Your task to perform on an android device: open app "Spotify" (install if not already installed) and go to login screen Image 0: 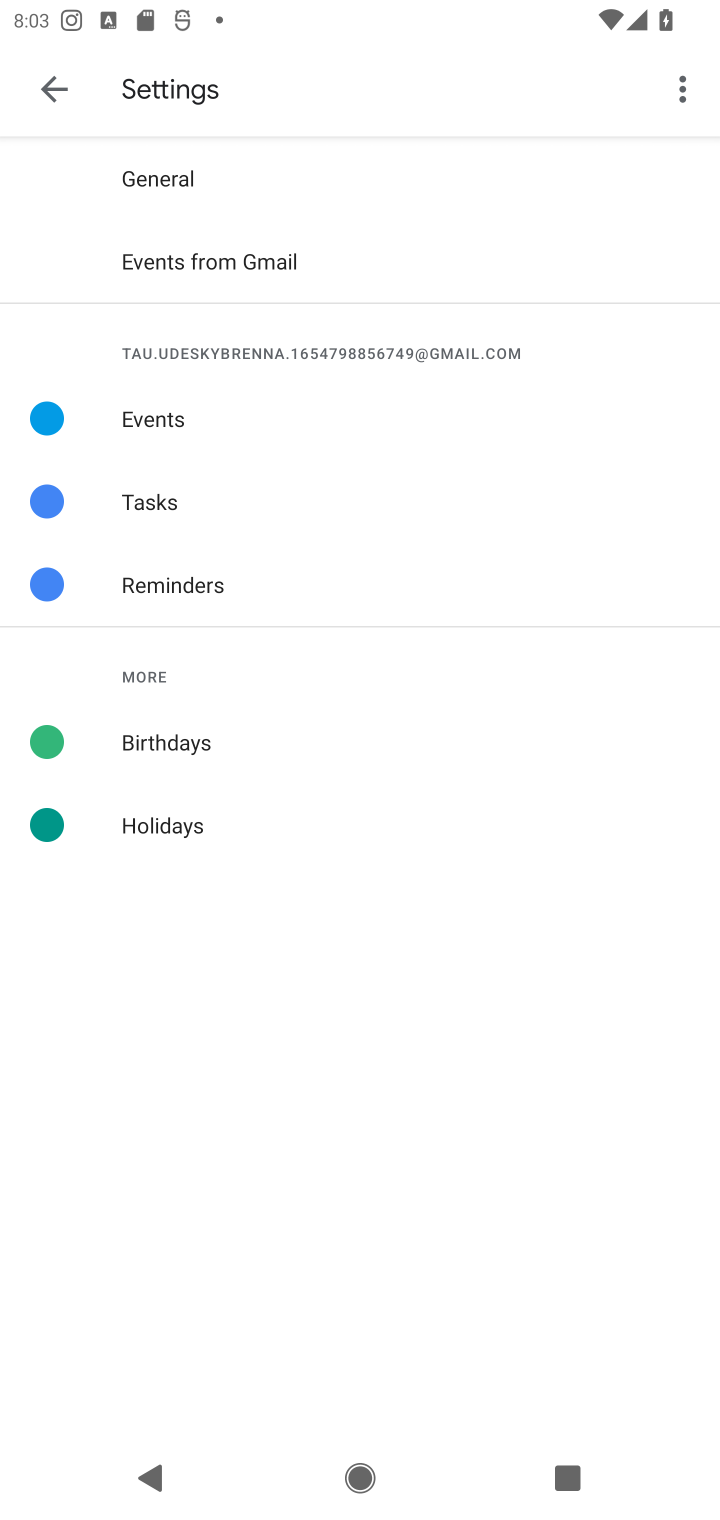
Step 0: press home button
Your task to perform on an android device: open app "Spotify" (install if not already installed) and go to login screen Image 1: 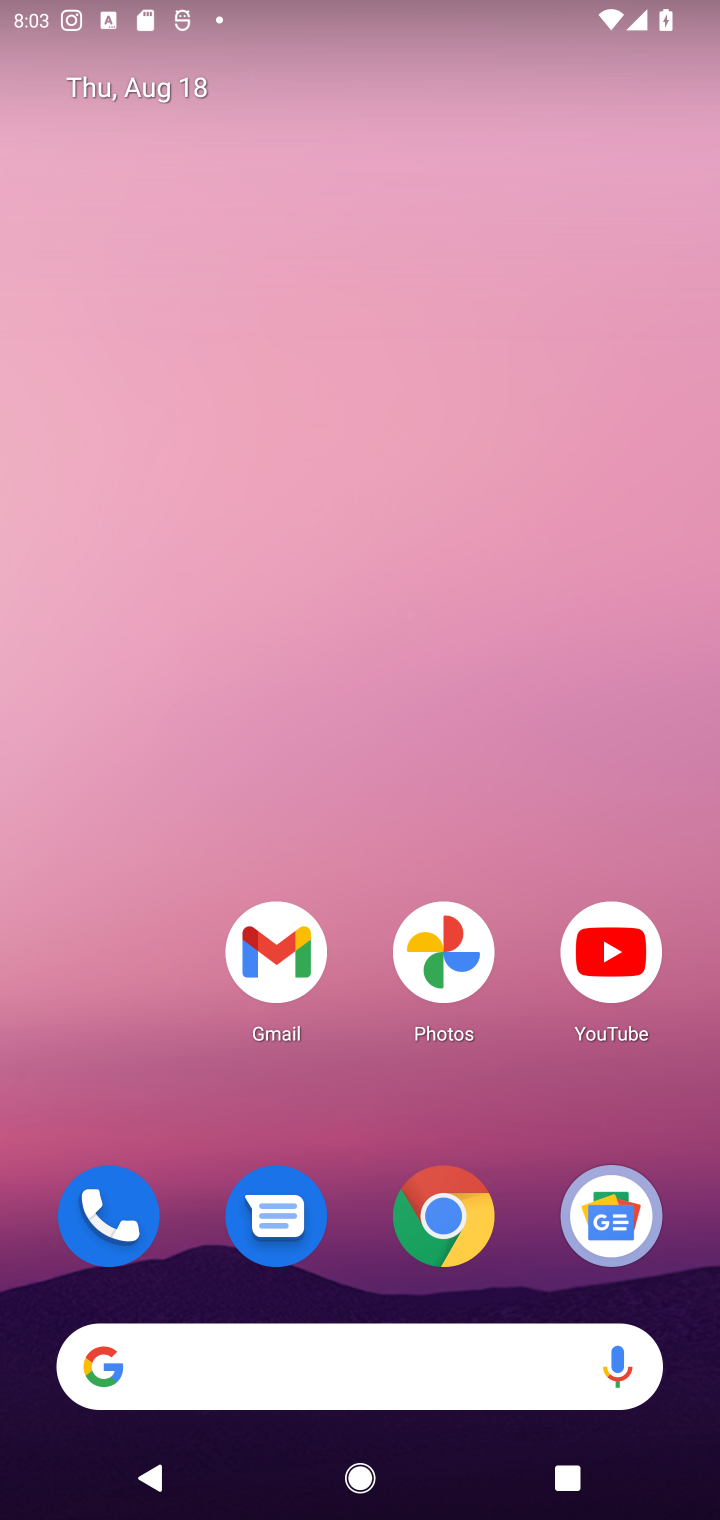
Step 1: drag from (372, 801) to (388, 198)
Your task to perform on an android device: open app "Spotify" (install if not already installed) and go to login screen Image 2: 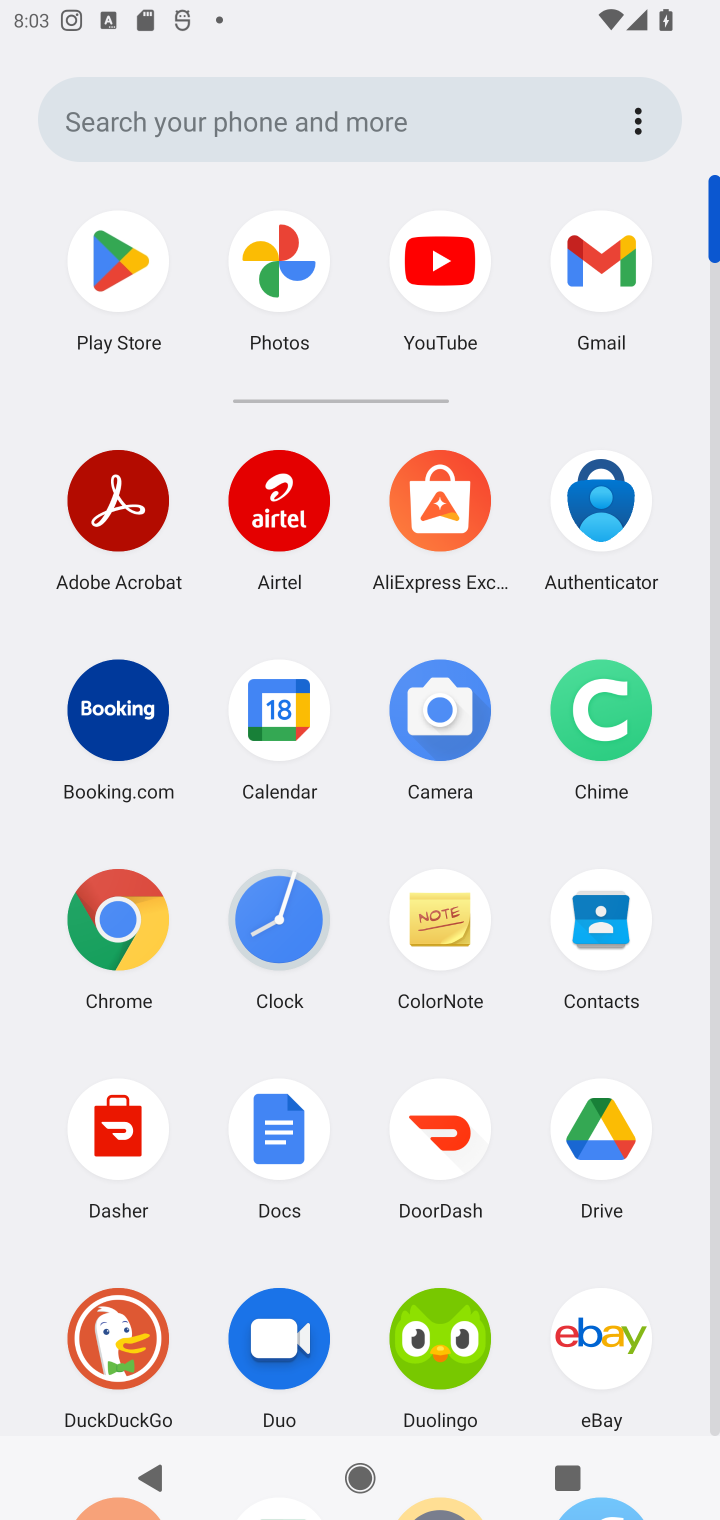
Step 2: click (144, 260)
Your task to perform on an android device: open app "Spotify" (install if not already installed) and go to login screen Image 3: 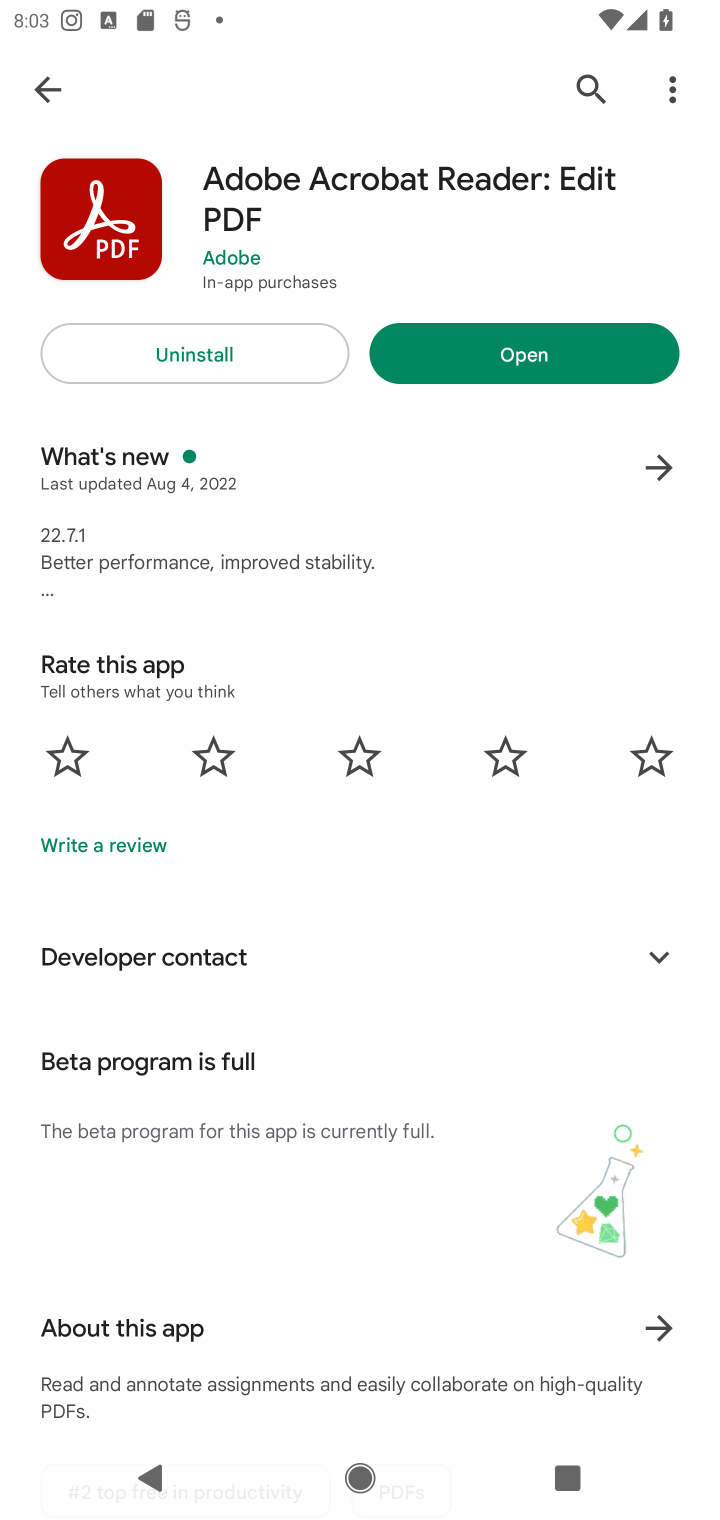
Step 3: click (579, 74)
Your task to perform on an android device: open app "Spotify" (install if not already installed) and go to login screen Image 4: 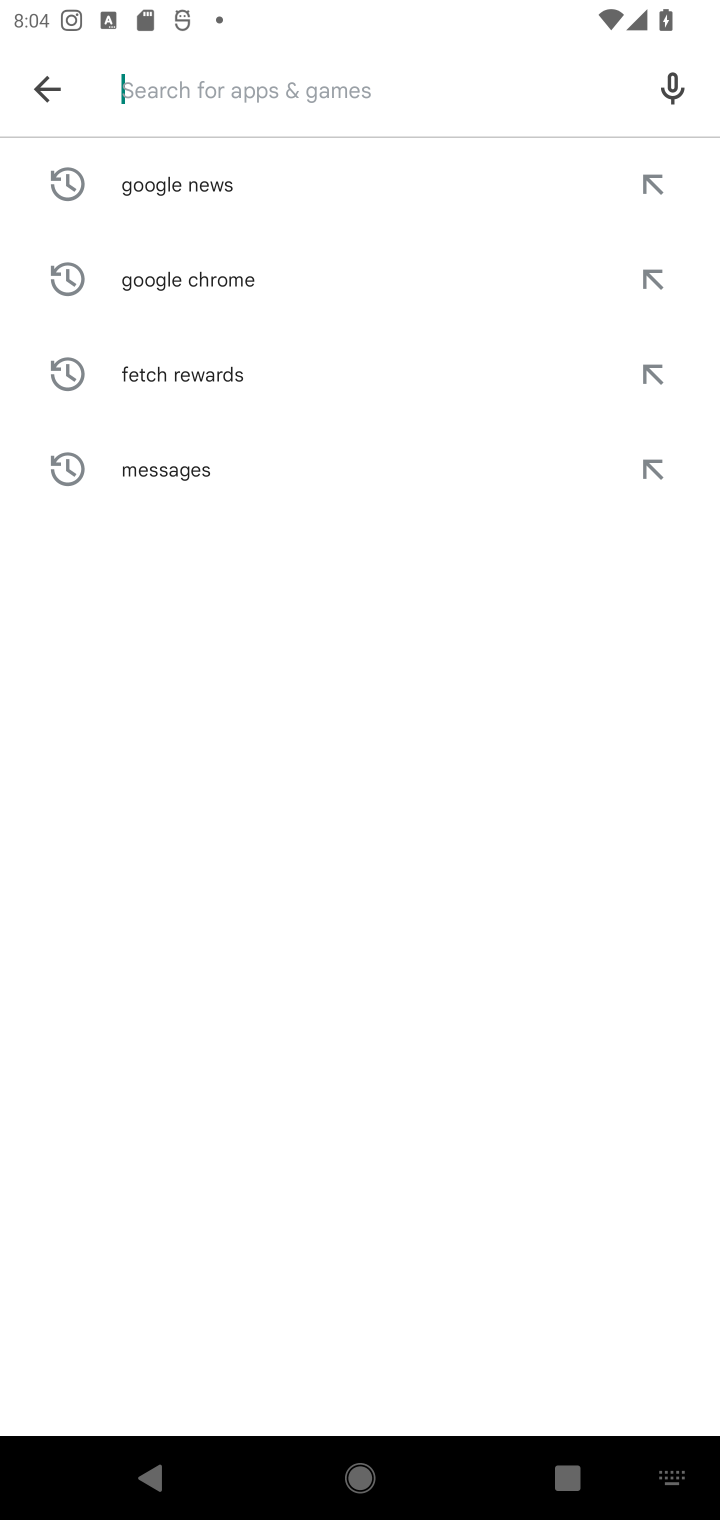
Step 4: type "Spotify"
Your task to perform on an android device: open app "Spotify" (install if not already installed) and go to login screen Image 5: 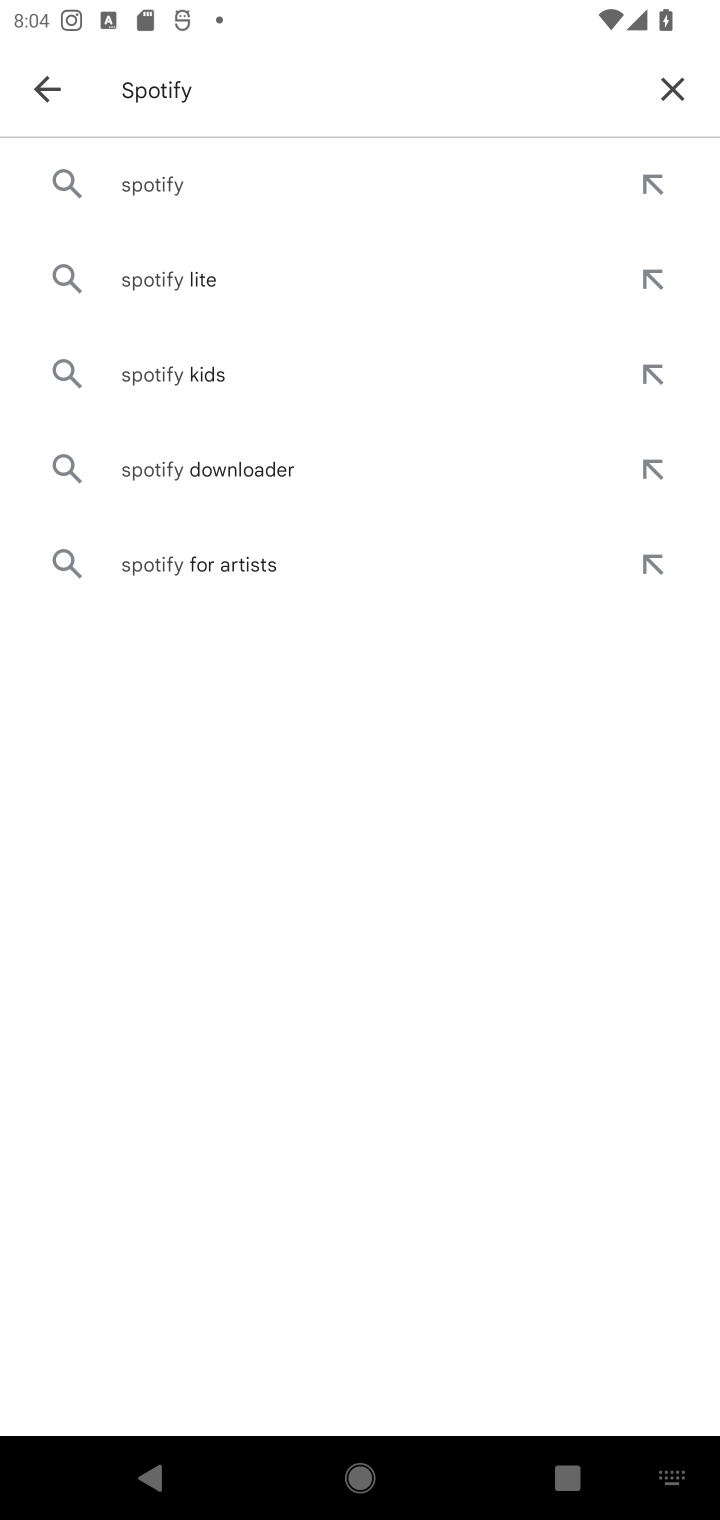
Step 5: click (232, 200)
Your task to perform on an android device: open app "Spotify" (install if not already installed) and go to login screen Image 6: 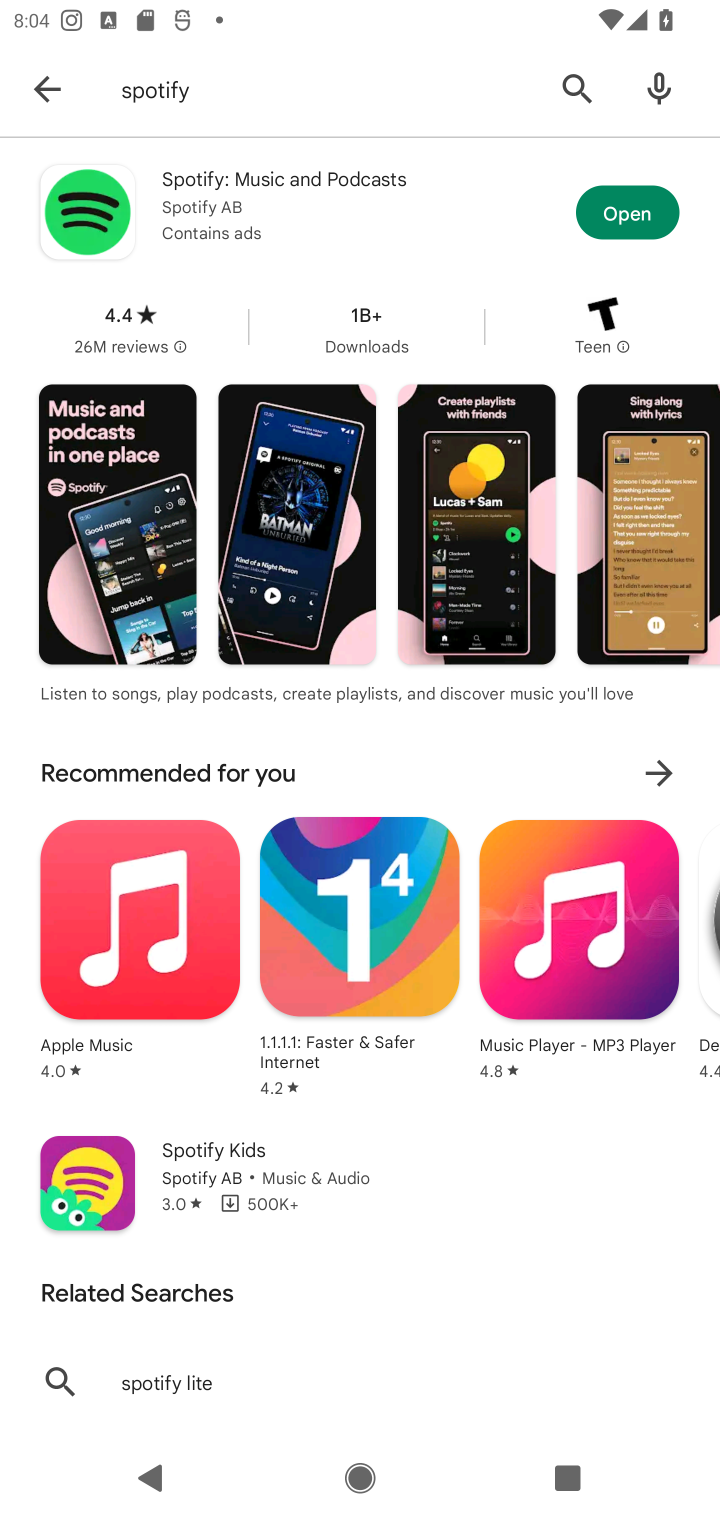
Step 6: click (668, 208)
Your task to perform on an android device: open app "Spotify" (install if not already installed) and go to login screen Image 7: 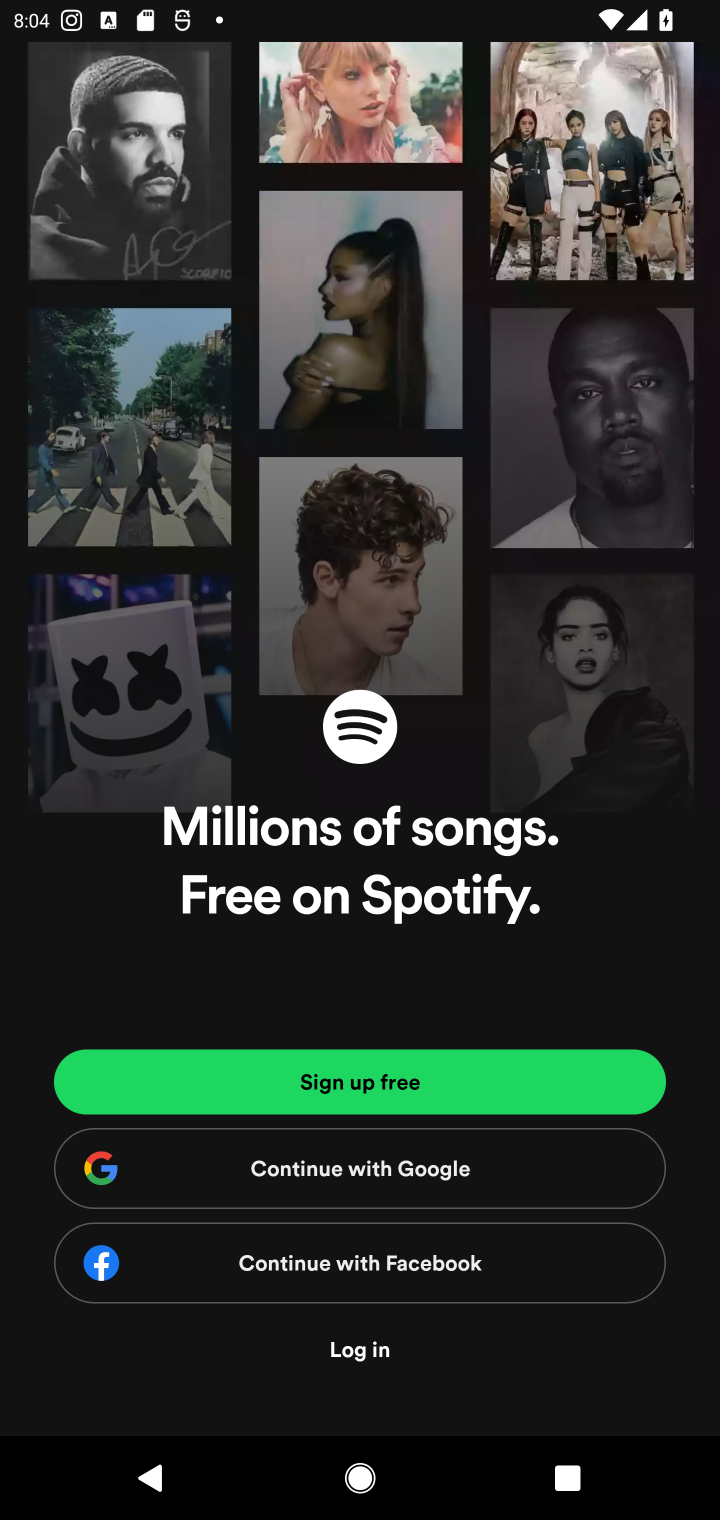
Step 7: task complete